Your task to perform on an android device: uninstall "DuckDuckGo Privacy Browser" Image 0: 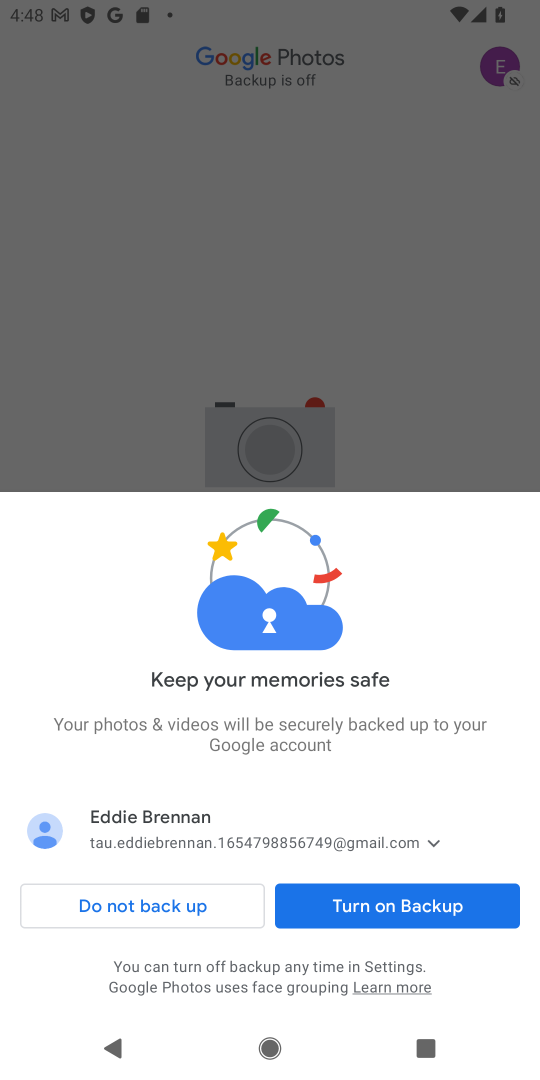
Step 0: press home button
Your task to perform on an android device: uninstall "DuckDuckGo Privacy Browser" Image 1: 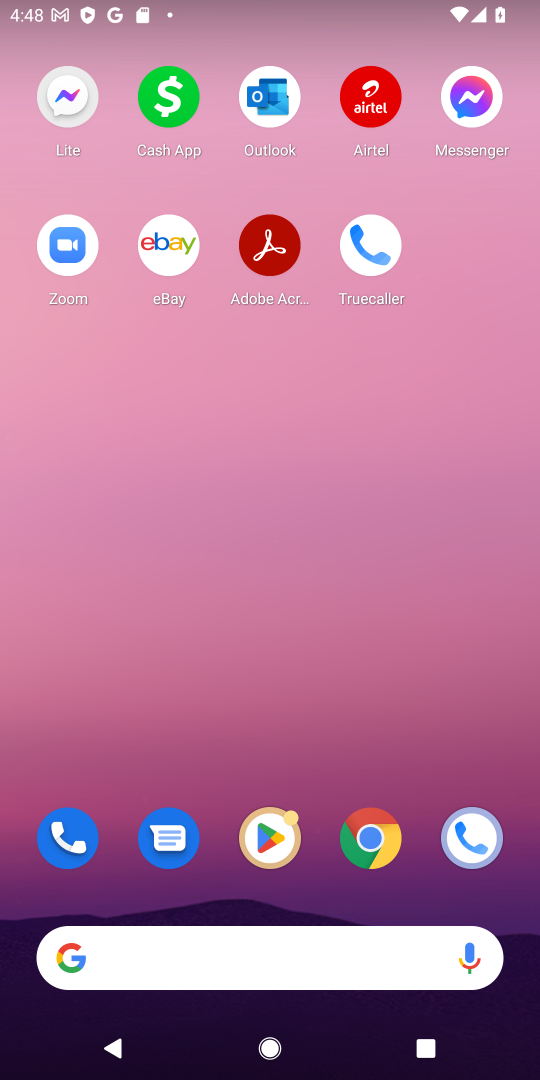
Step 1: drag from (230, 953) to (284, 33)
Your task to perform on an android device: uninstall "DuckDuckGo Privacy Browser" Image 2: 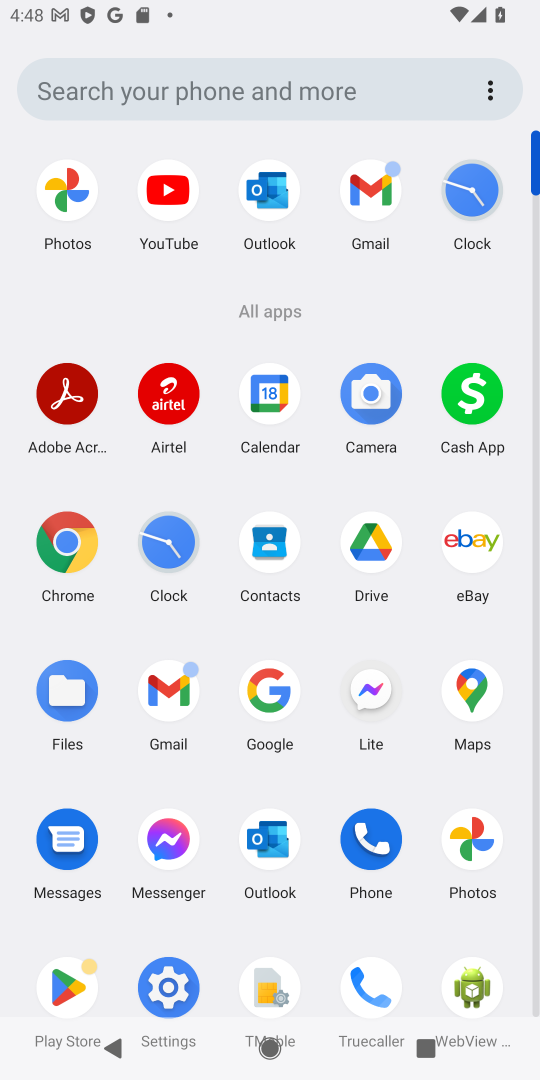
Step 2: click (74, 986)
Your task to perform on an android device: uninstall "DuckDuckGo Privacy Browser" Image 3: 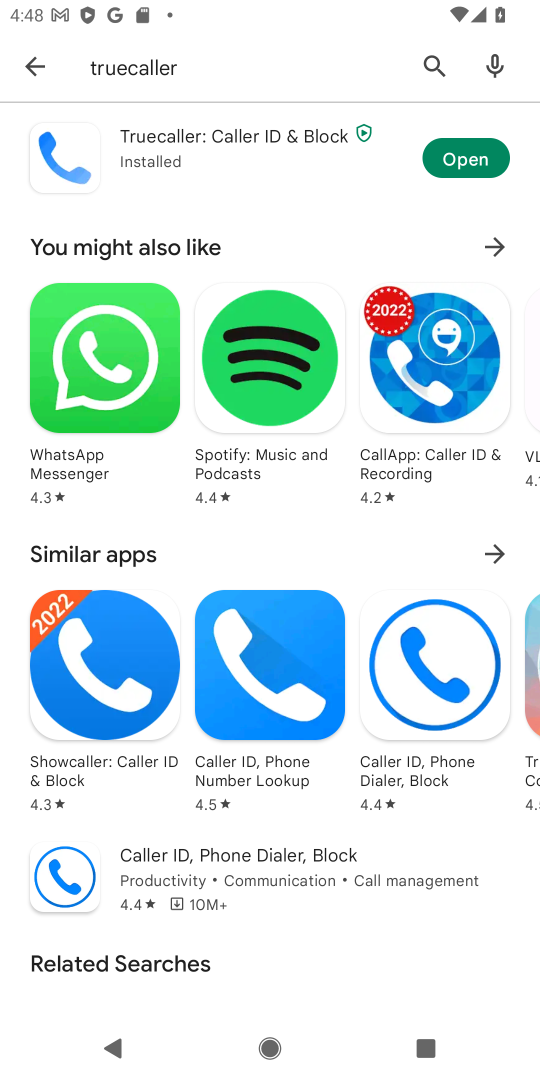
Step 3: press back button
Your task to perform on an android device: uninstall "DuckDuckGo Privacy Browser" Image 4: 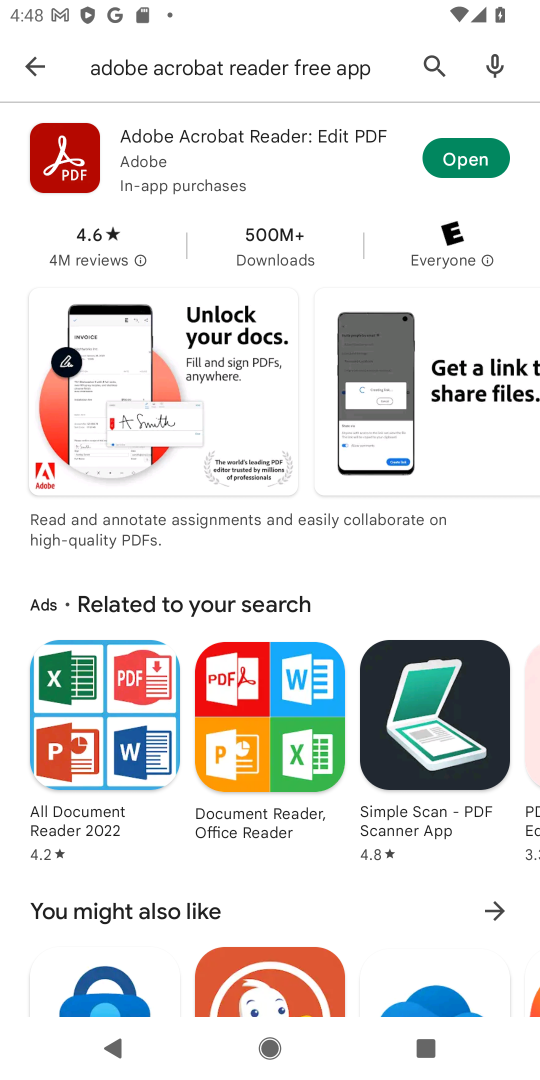
Step 4: press back button
Your task to perform on an android device: uninstall "DuckDuckGo Privacy Browser" Image 5: 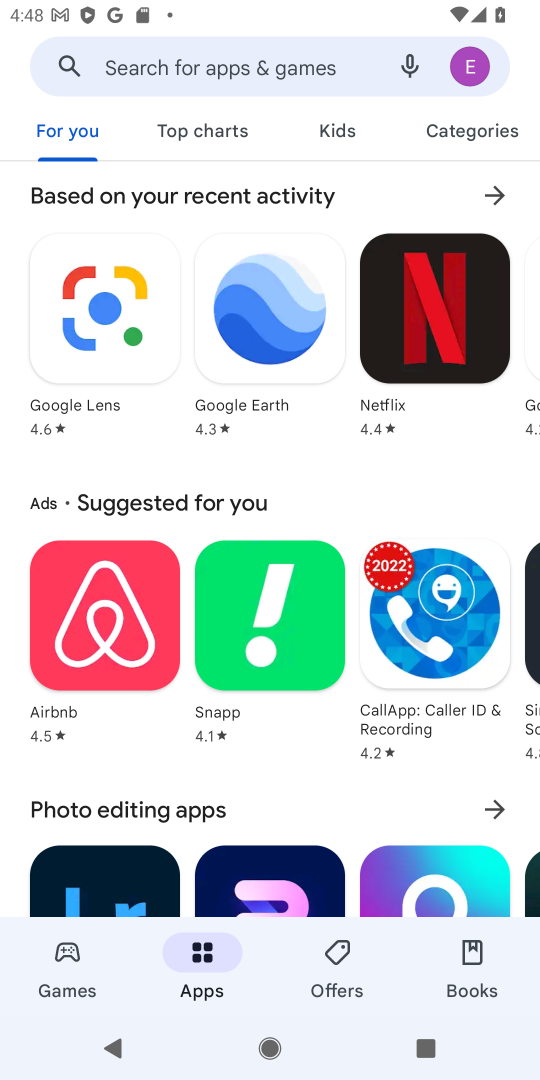
Step 5: click (283, 61)
Your task to perform on an android device: uninstall "DuckDuckGo Privacy Browser" Image 6: 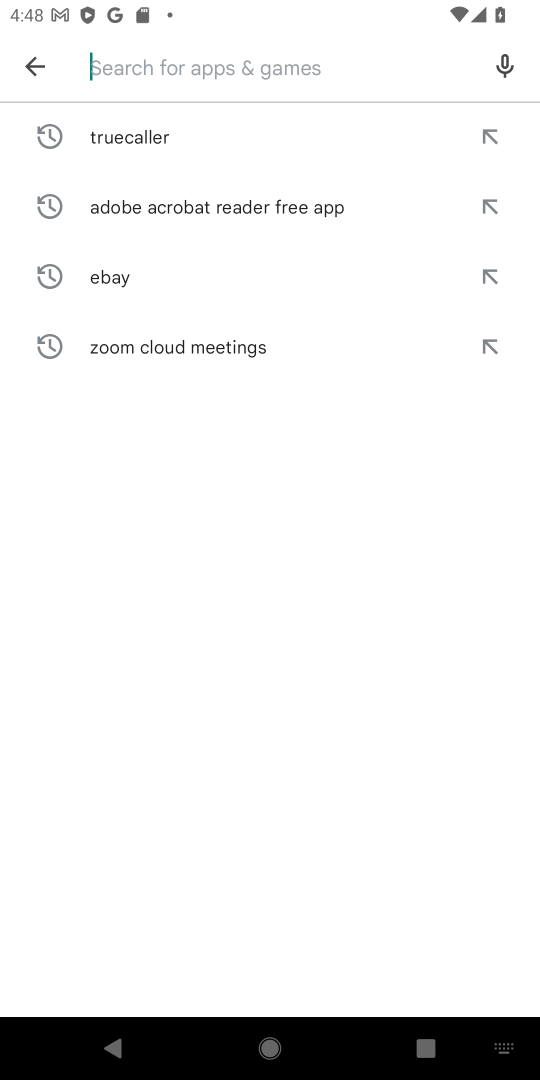
Step 6: type "DuckDuckGo Privacy Browser"
Your task to perform on an android device: uninstall "DuckDuckGo Privacy Browser" Image 7: 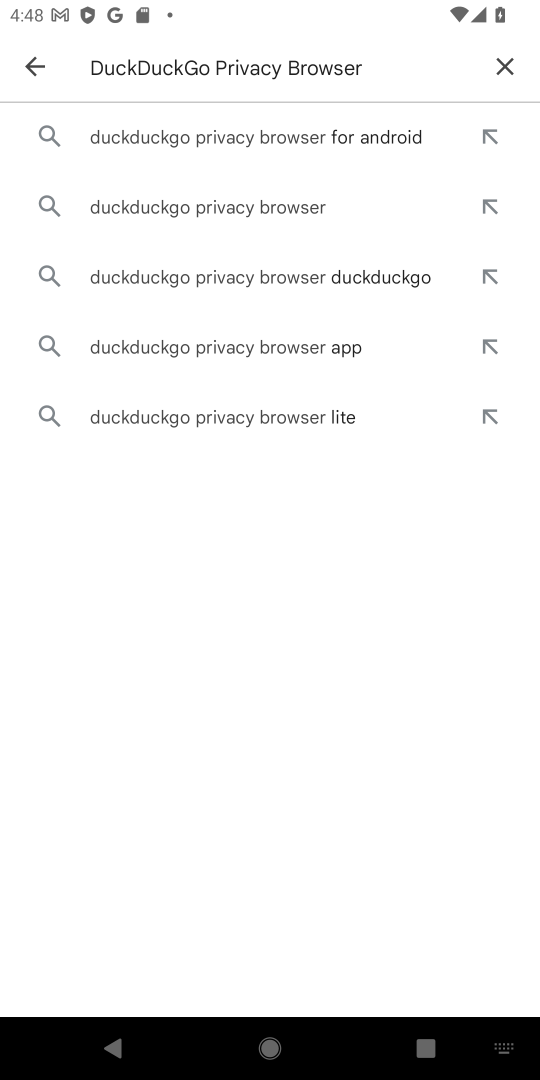
Step 7: click (218, 209)
Your task to perform on an android device: uninstall "DuckDuckGo Privacy Browser" Image 8: 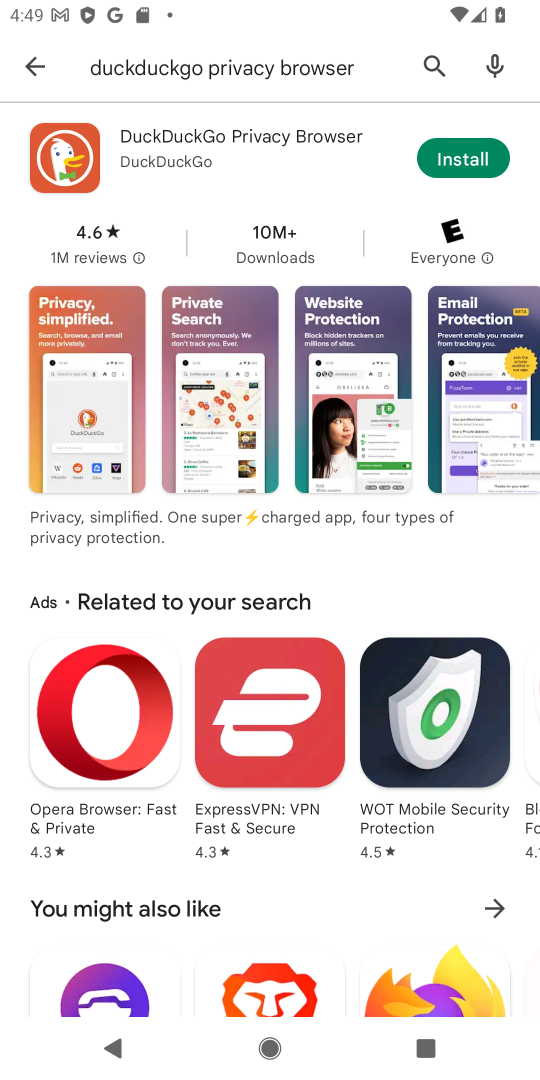
Step 8: task complete